Your task to perform on an android device: change alarm snooze length Image 0: 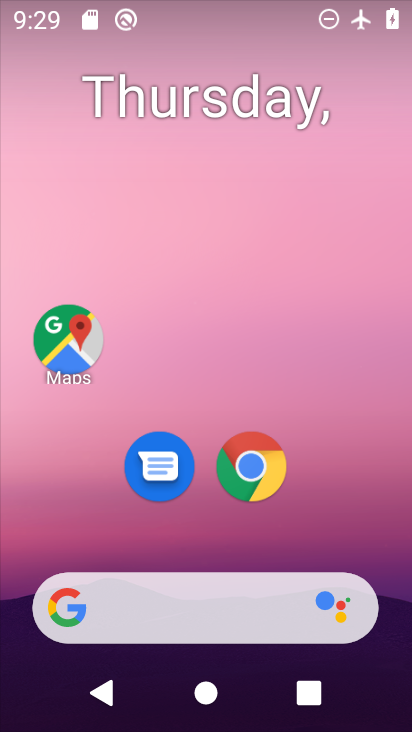
Step 0: drag from (259, 591) to (305, 5)
Your task to perform on an android device: change alarm snooze length Image 1: 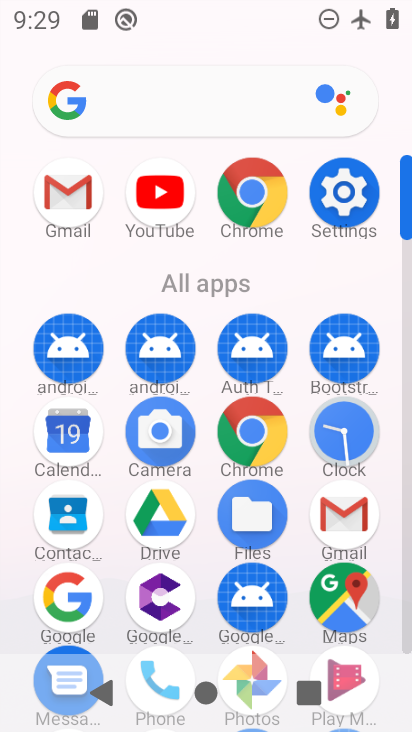
Step 1: click (339, 441)
Your task to perform on an android device: change alarm snooze length Image 2: 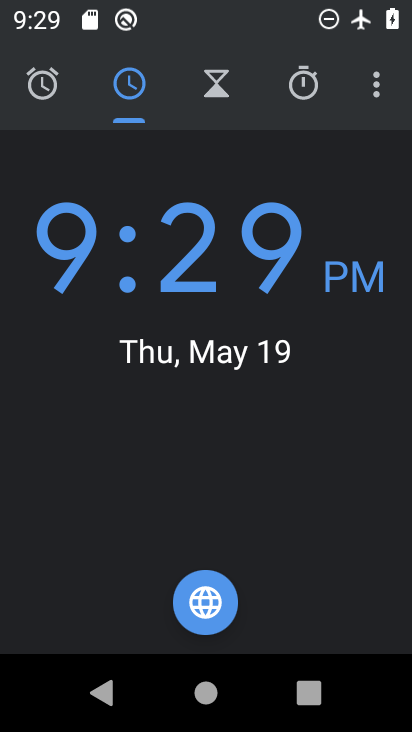
Step 2: click (371, 79)
Your task to perform on an android device: change alarm snooze length Image 3: 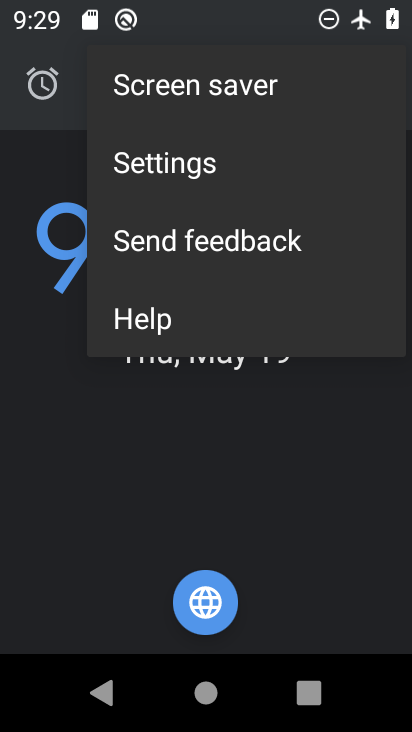
Step 3: click (285, 170)
Your task to perform on an android device: change alarm snooze length Image 4: 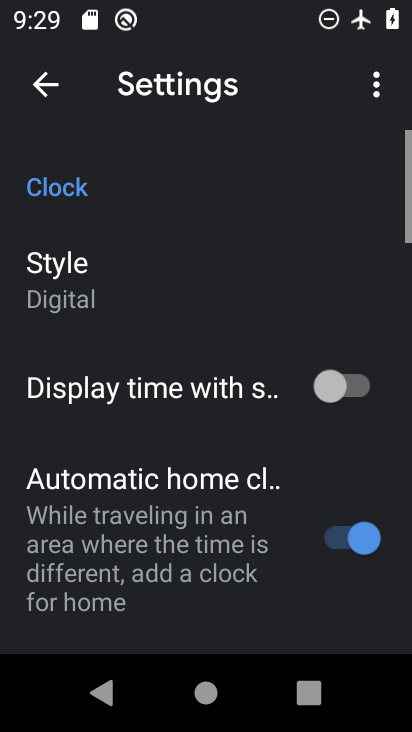
Step 4: drag from (290, 576) to (340, 95)
Your task to perform on an android device: change alarm snooze length Image 5: 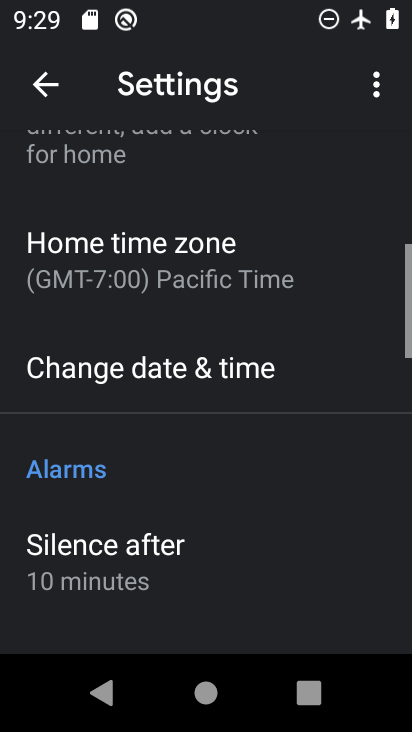
Step 5: drag from (275, 263) to (278, 81)
Your task to perform on an android device: change alarm snooze length Image 6: 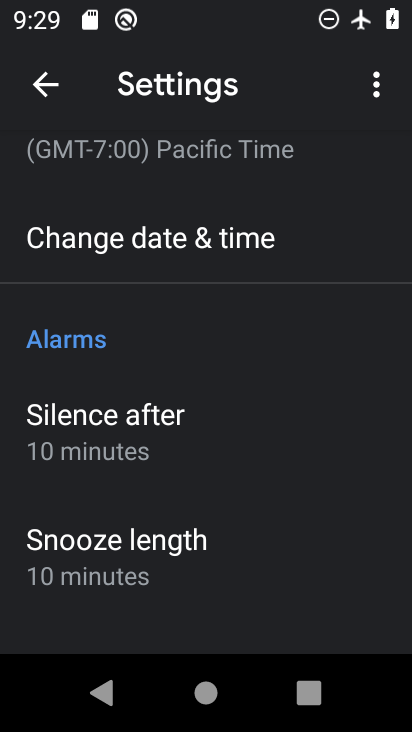
Step 6: click (165, 560)
Your task to perform on an android device: change alarm snooze length Image 7: 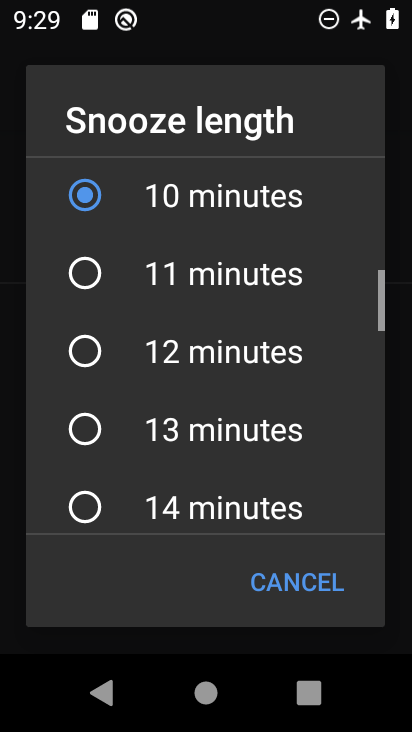
Step 7: click (154, 275)
Your task to perform on an android device: change alarm snooze length Image 8: 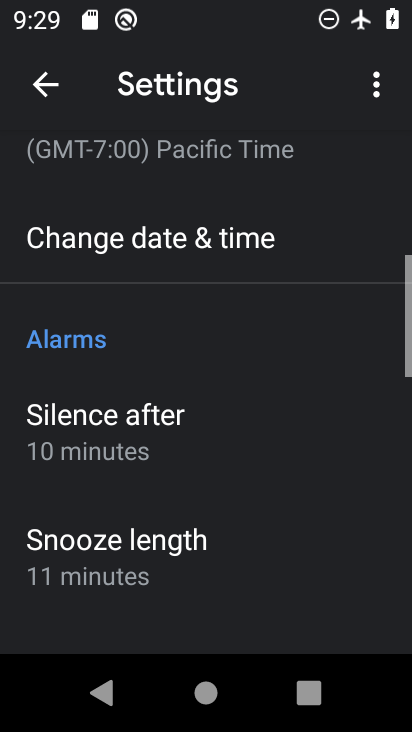
Step 8: task complete